Your task to perform on an android device: turn on improve location accuracy Image 0: 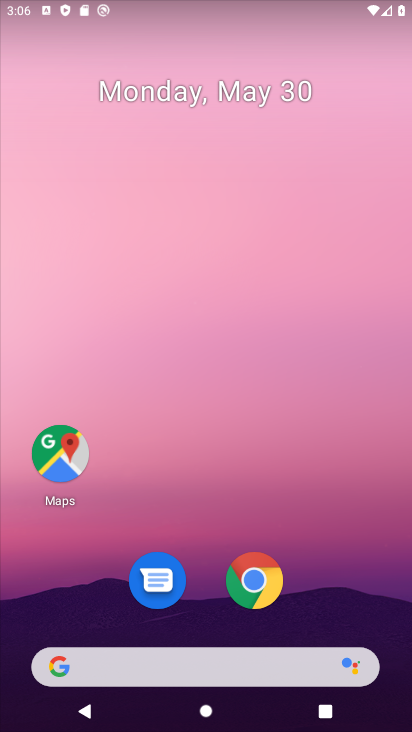
Step 0: drag from (305, 591) to (410, 46)
Your task to perform on an android device: turn on improve location accuracy Image 1: 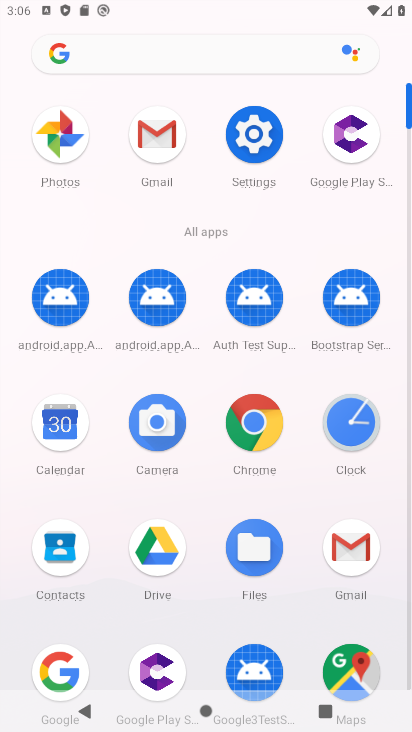
Step 1: click (245, 143)
Your task to perform on an android device: turn on improve location accuracy Image 2: 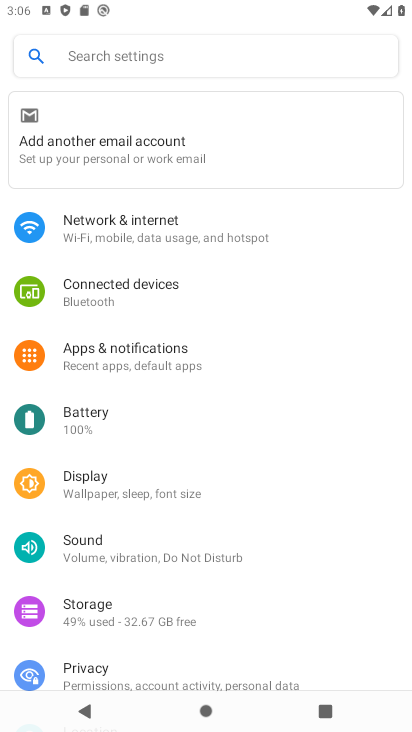
Step 2: drag from (196, 649) to (171, 184)
Your task to perform on an android device: turn on improve location accuracy Image 3: 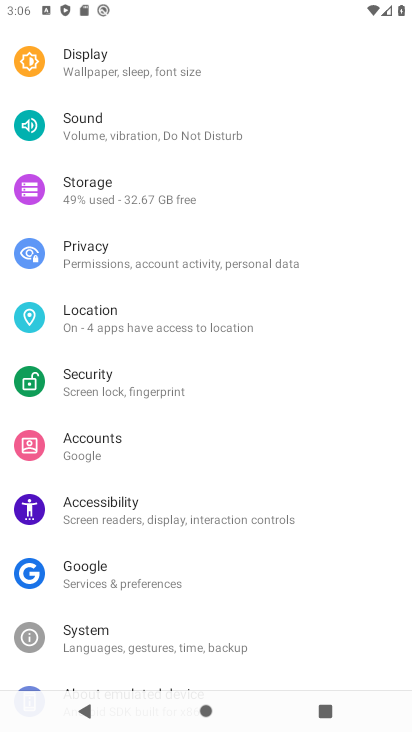
Step 3: click (89, 314)
Your task to perform on an android device: turn on improve location accuracy Image 4: 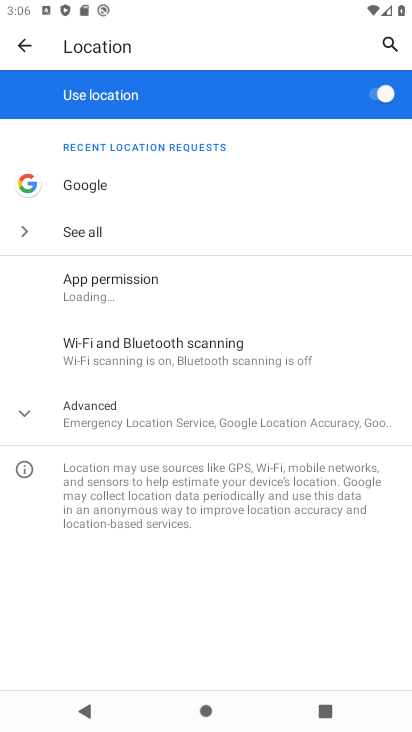
Step 4: click (104, 429)
Your task to perform on an android device: turn on improve location accuracy Image 5: 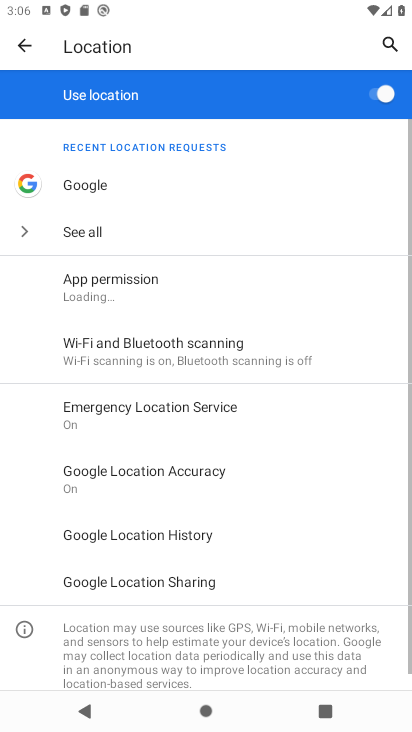
Step 5: click (175, 474)
Your task to perform on an android device: turn on improve location accuracy Image 6: 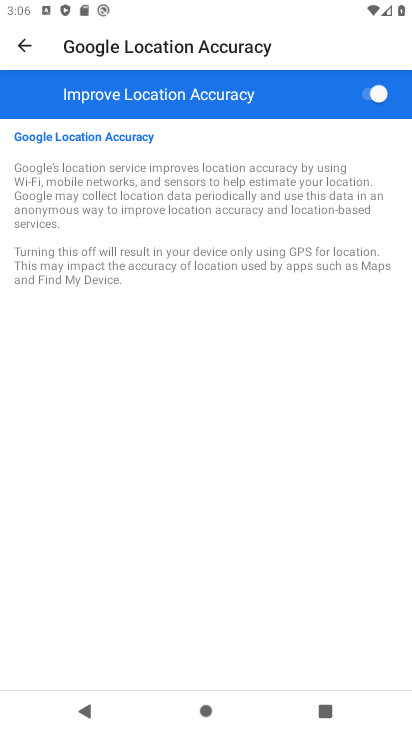
Step 6: task complete